Your task to perform on an android device: find which apps use the phone's location Image 0: 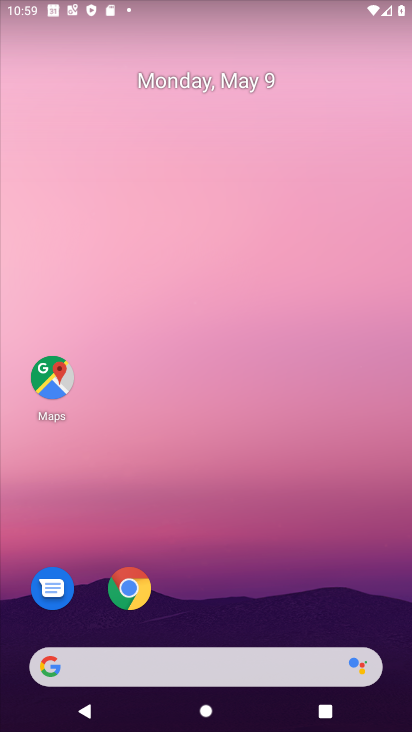
Step 0: drag from (226, 629) to (268, 20)
Your task to perform on an android device: find which apps use the phone's location Image 1: 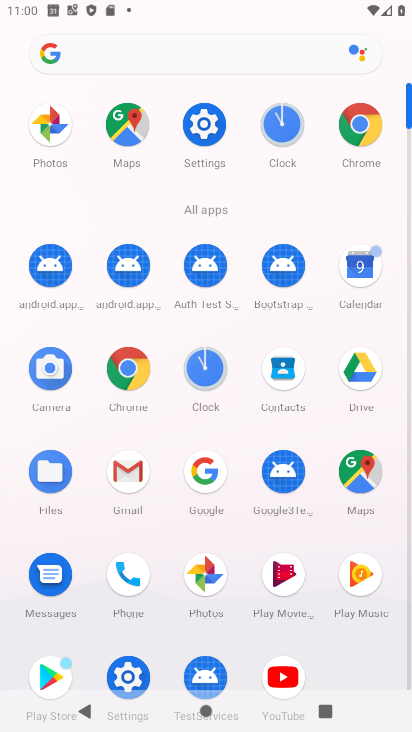
Step 1: click (201, 136)
Your task to perform on an android device: find which apps use the phone's location Image 2: 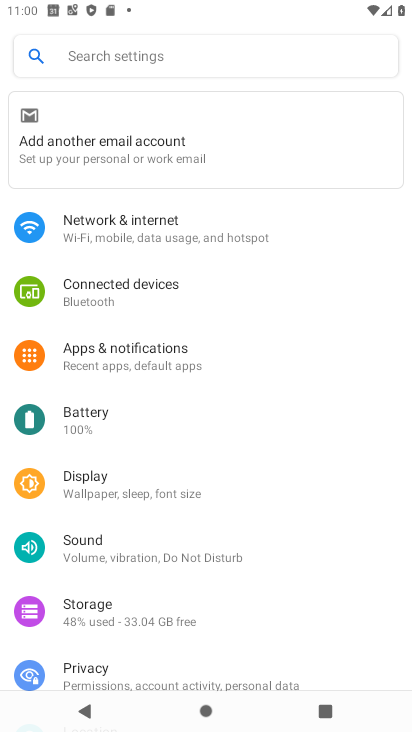
Step 2: drag from (169, 674) to (174, 215)
Your task to perform on an android device: find which apps use the phone's location Image 3: 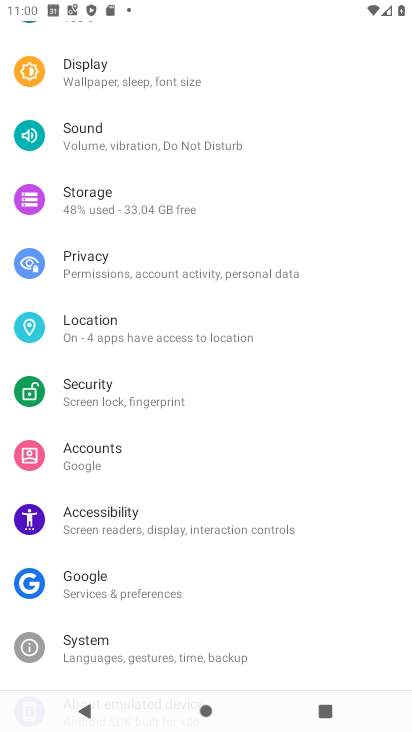
Step 3: click (116, 329)
Your task to perform on an android device: find which apps use the phone's location Image 4: 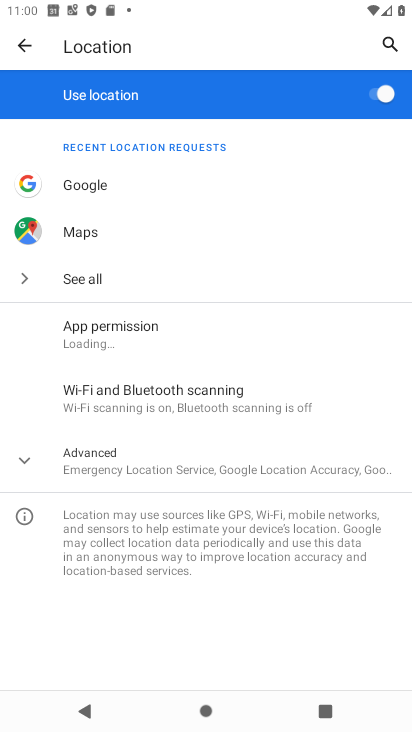
Step 4: click (116, 329)
Your task to perform on an android device: find which apps use the phone's location Image 5: 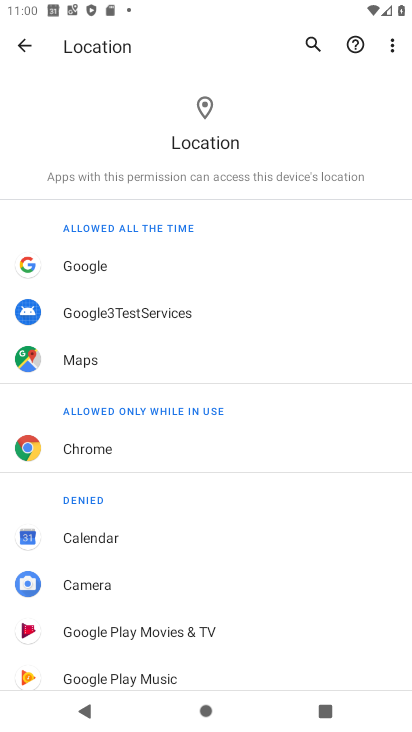
Step 5: task complete